Your task to perform on an android device: change text size in settings app Image 0: 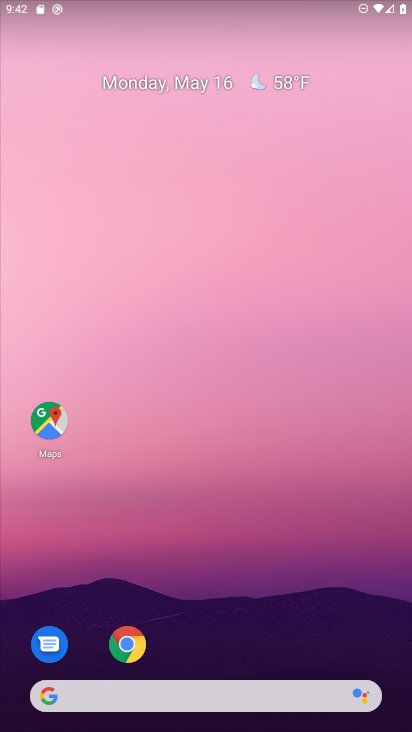
Step 0: drag from (216, 690) to (257, 114)
Your task to perform on an android device: change text size in settings app Image 1: 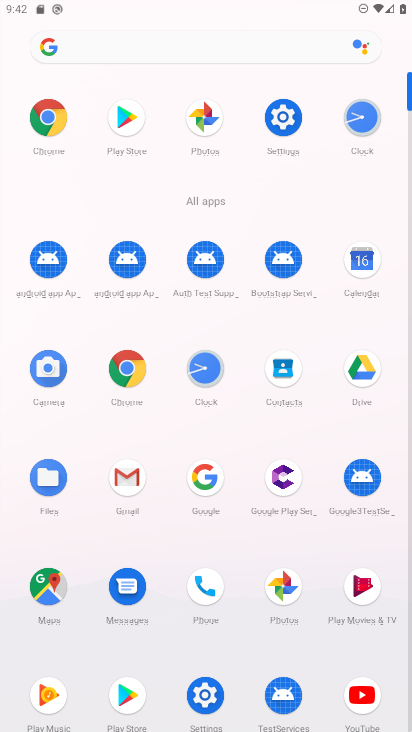
Step 1: click (280, 120)
Your task to perform on an android device: change text size in settings app Image 2: 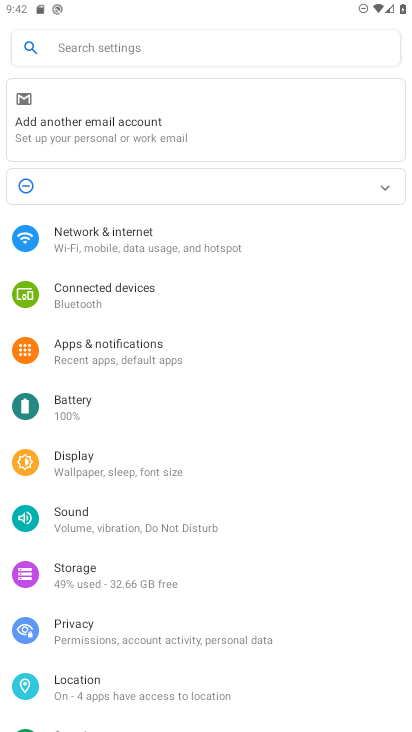
Step 2: click (126, 477)
Your task to perform on an android device: change text size in settings app Image 3: 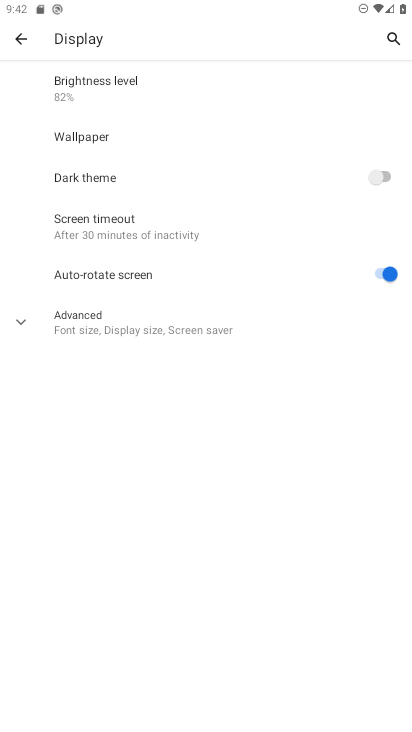
Step 3: click (50, 322)
Your task to perform on an android device: change text size in settings app Image 4: 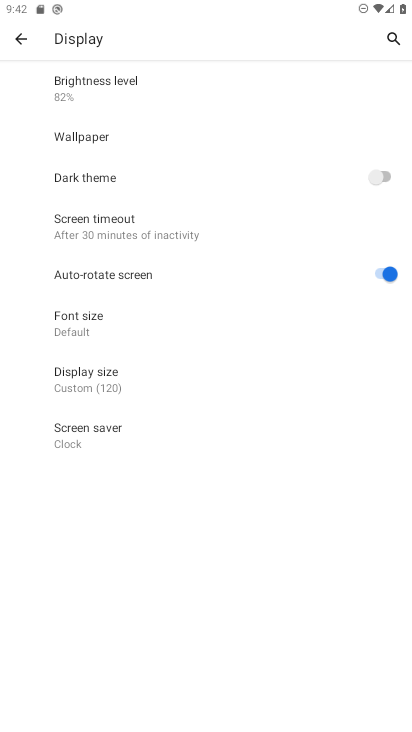
Step 4: click (106, 310)
Your task to perform on an android device: change text size in settings app Image 5: 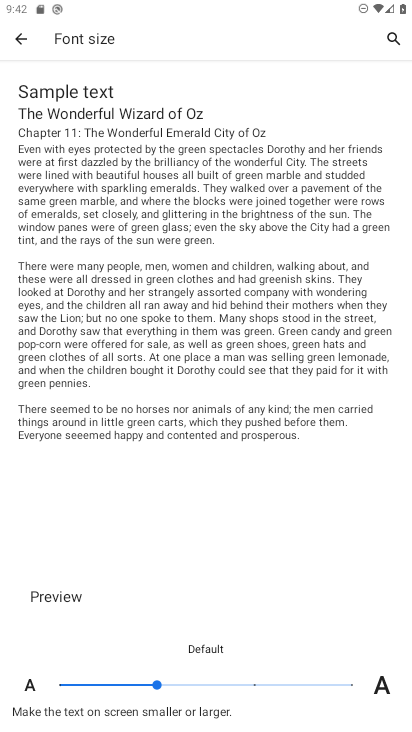
Step 5: click (67, 686)
Your task to perform on an android device: change text size in settings app Image 6: 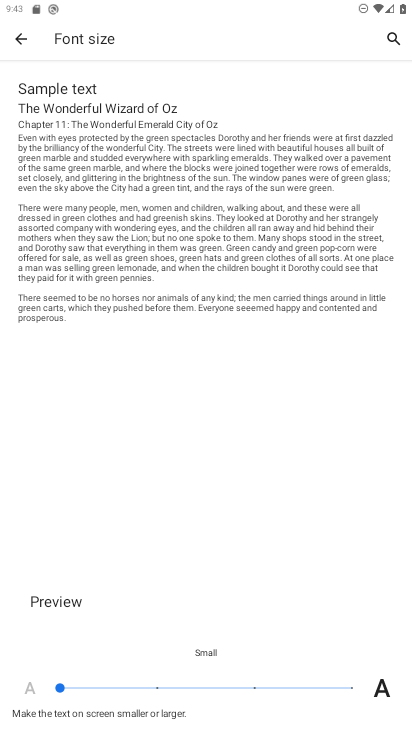
Step 6: task complete